Your task to perform on an android device: Show me popular games on the Play Store Image 0: 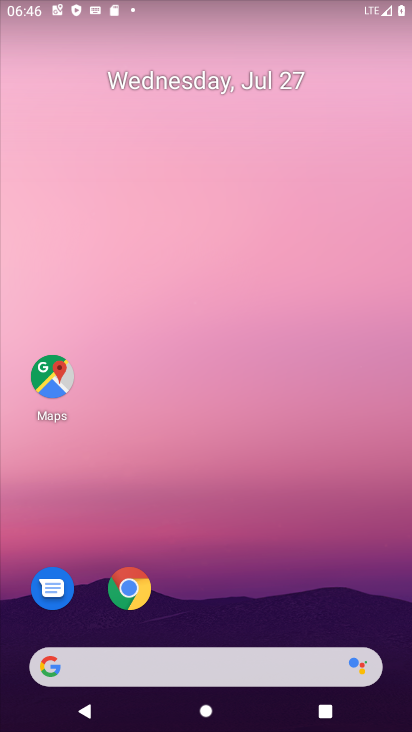
Step 0: drag from (257, 656) to (281, 48)
Your task to perform on an android device: Show me popular games on the Play Store Image 1: 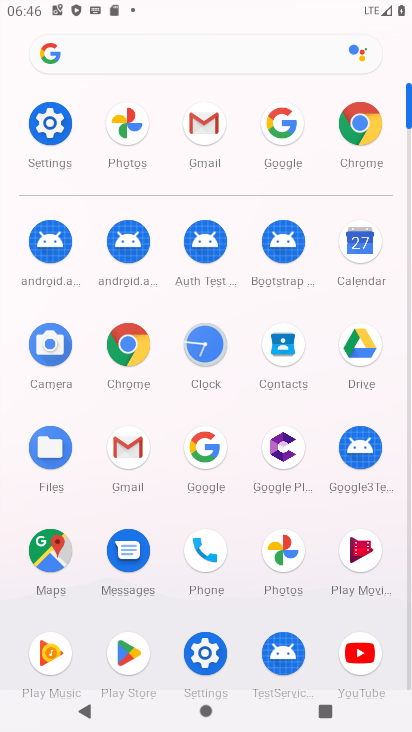
Step 1: click (132, 650)
Your task to perform on an android device: Show me popular games on the Play Store Image 2: 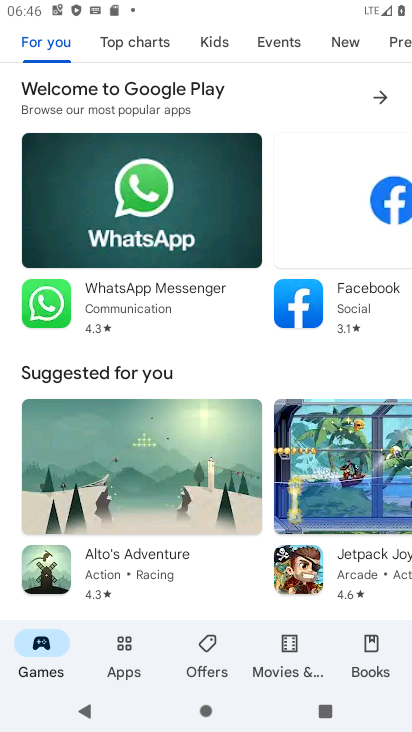
Step 2: task complete